Your task to perform on an android device: Show me the alarms in the clock app Image 0: 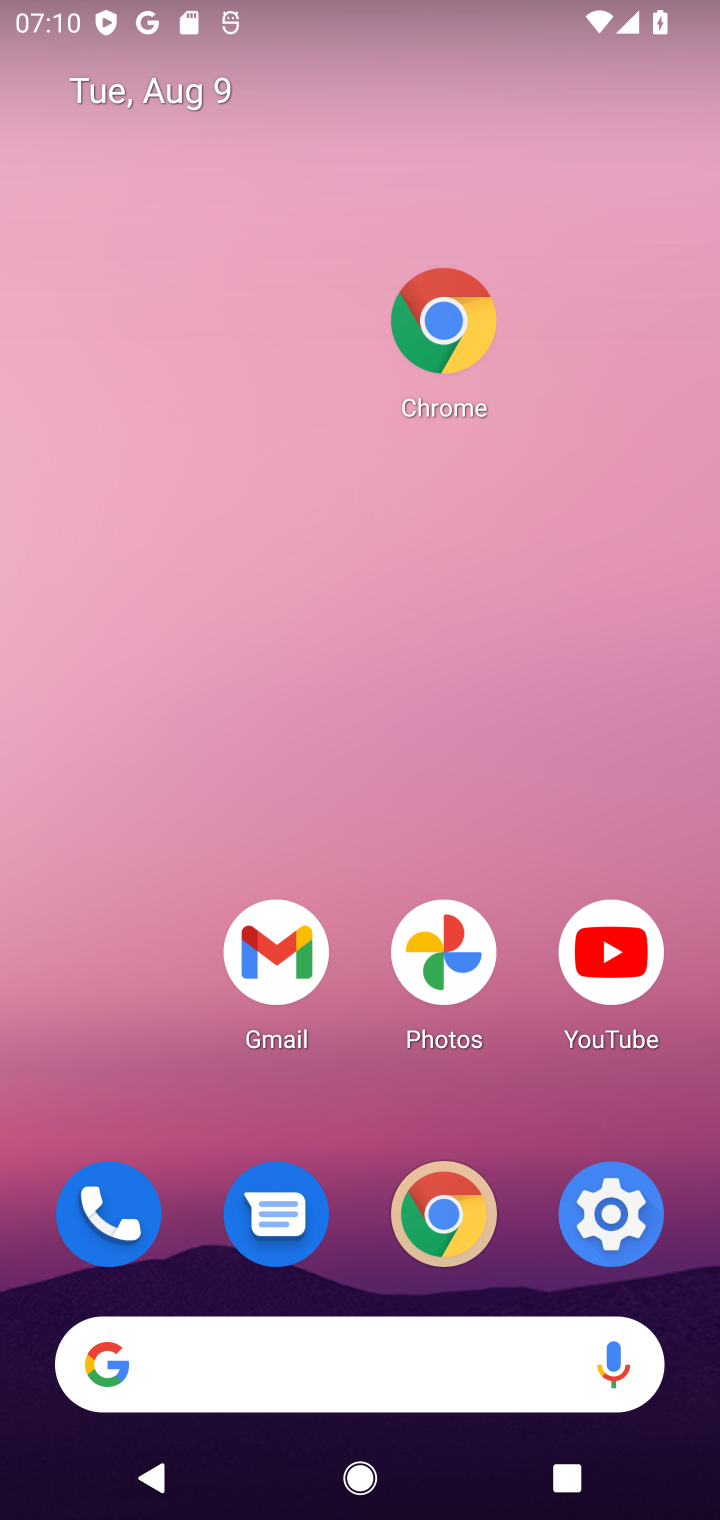
Step 0: drag from (542, 1311) to (333, 426)
Your task to perform on an android device: Show me the alarms in the clock app Image 1: 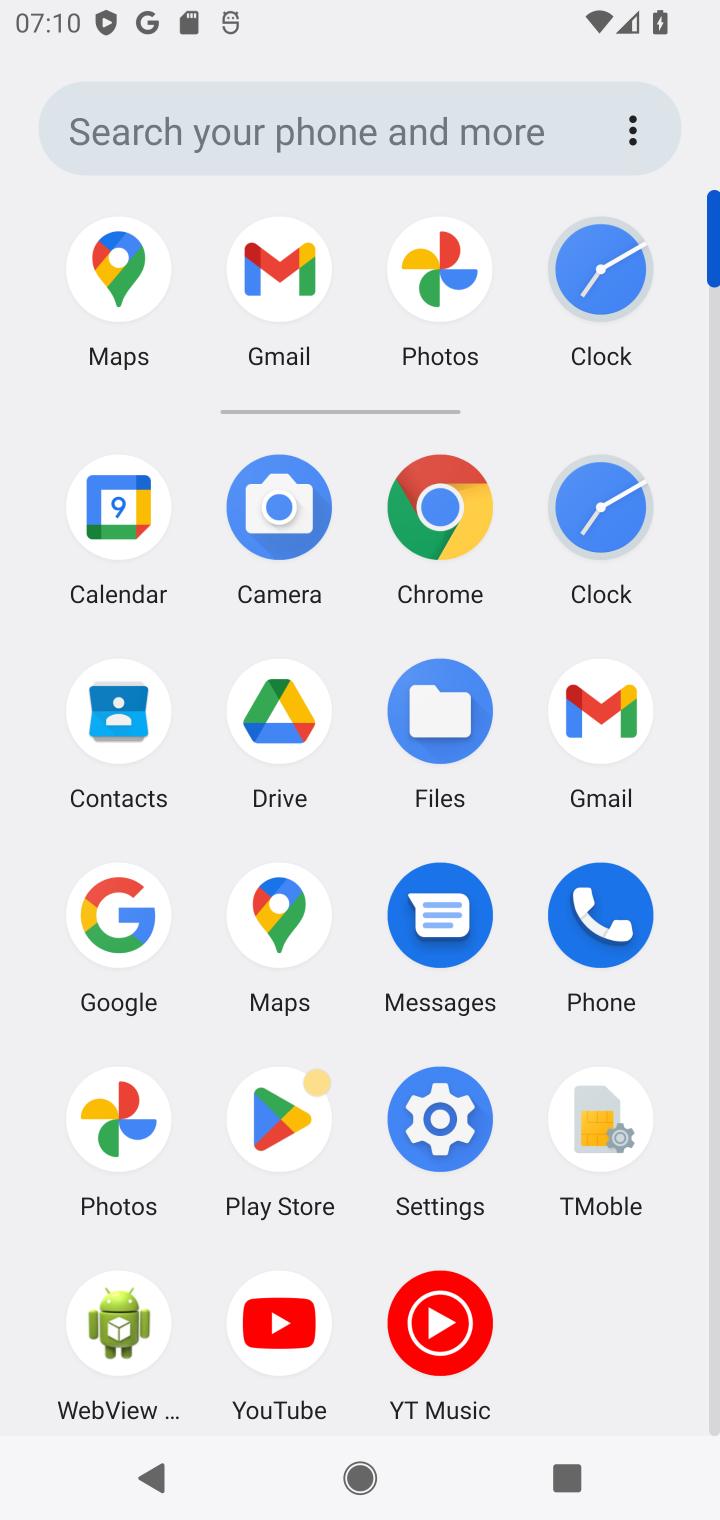
Step 1: click (587, 528)
Your task to perform on an android device: Show me the alarms in the clock app Image 2: 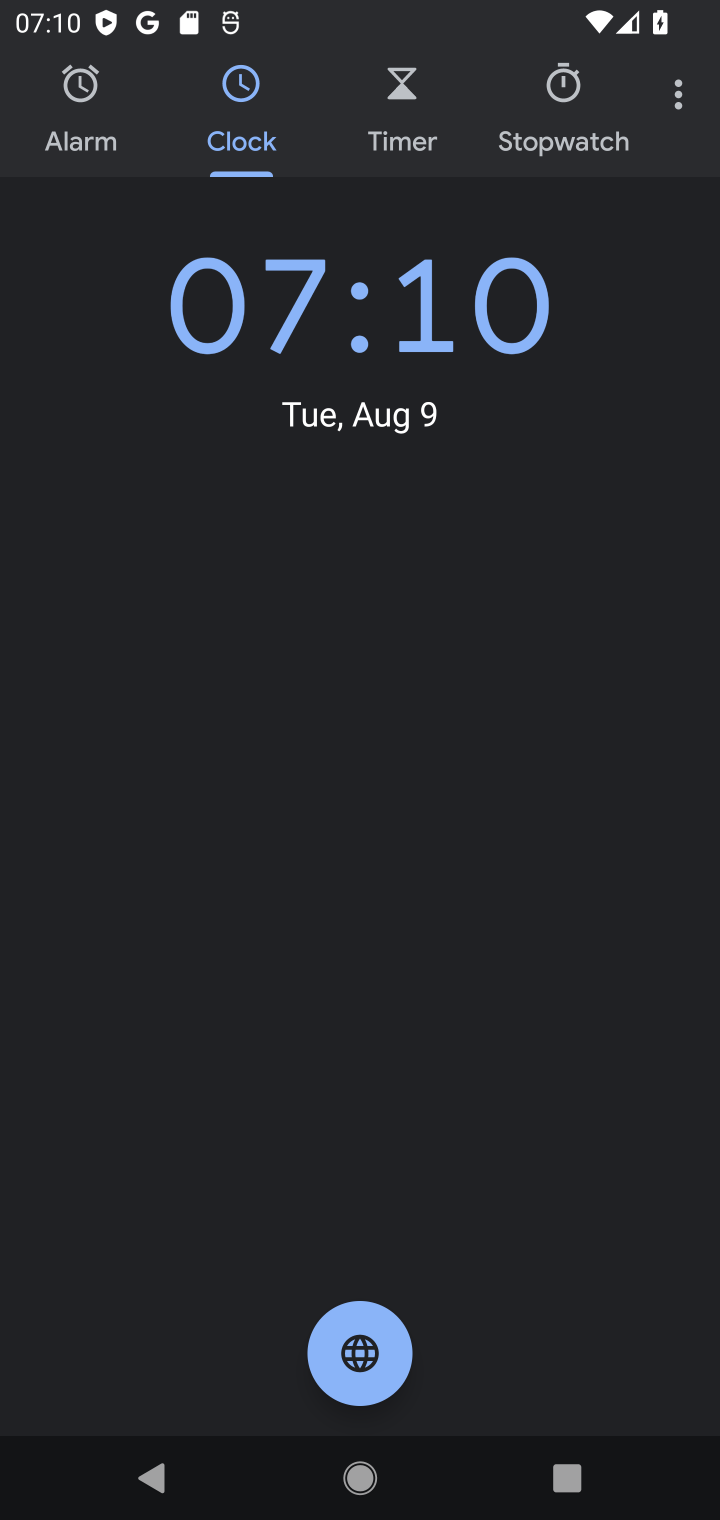
Step 2: click (76, 130)
Your task to perform on an android device: Show me the alarms in the clock app Image 3: 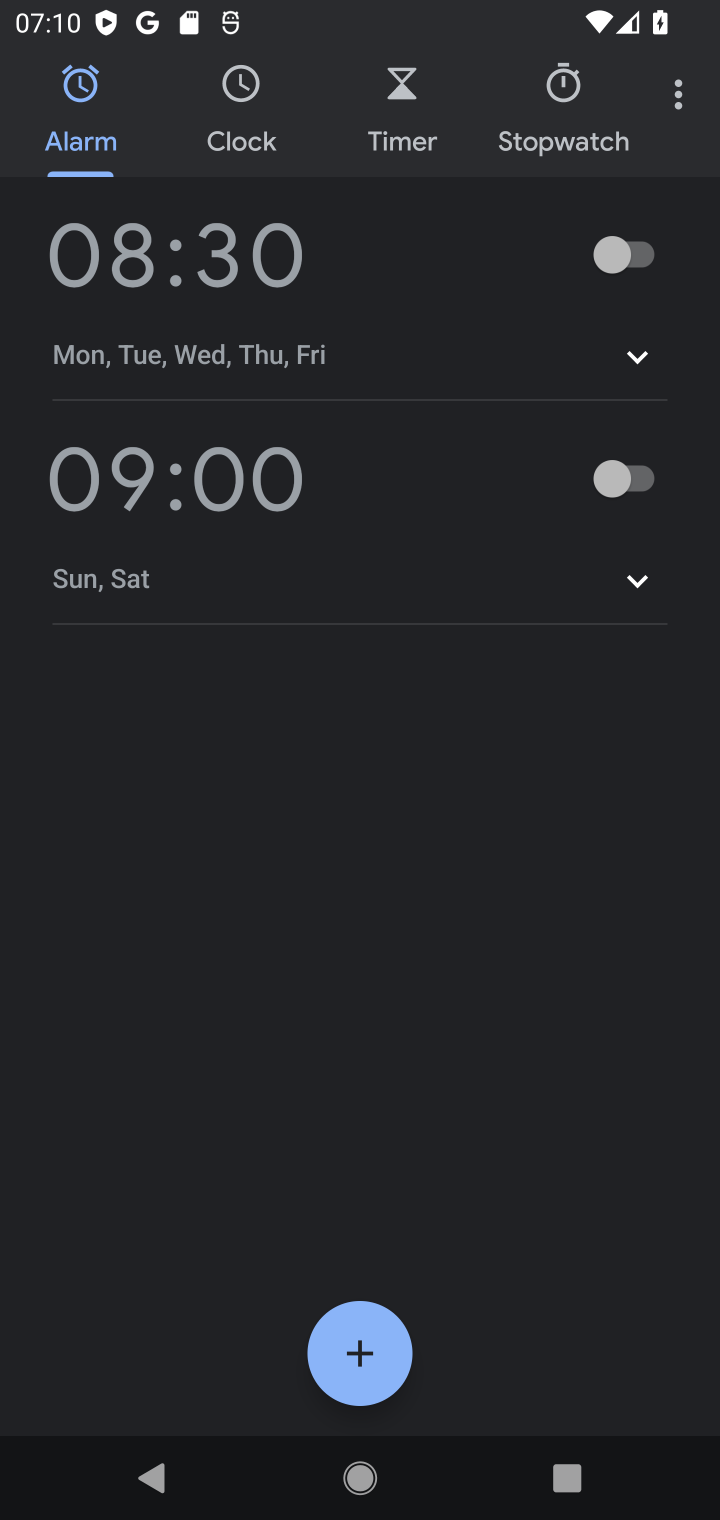
Step 3: click (613, 276)
Your task to perform on an android device: Show me the alarms in the clock app Image 4: 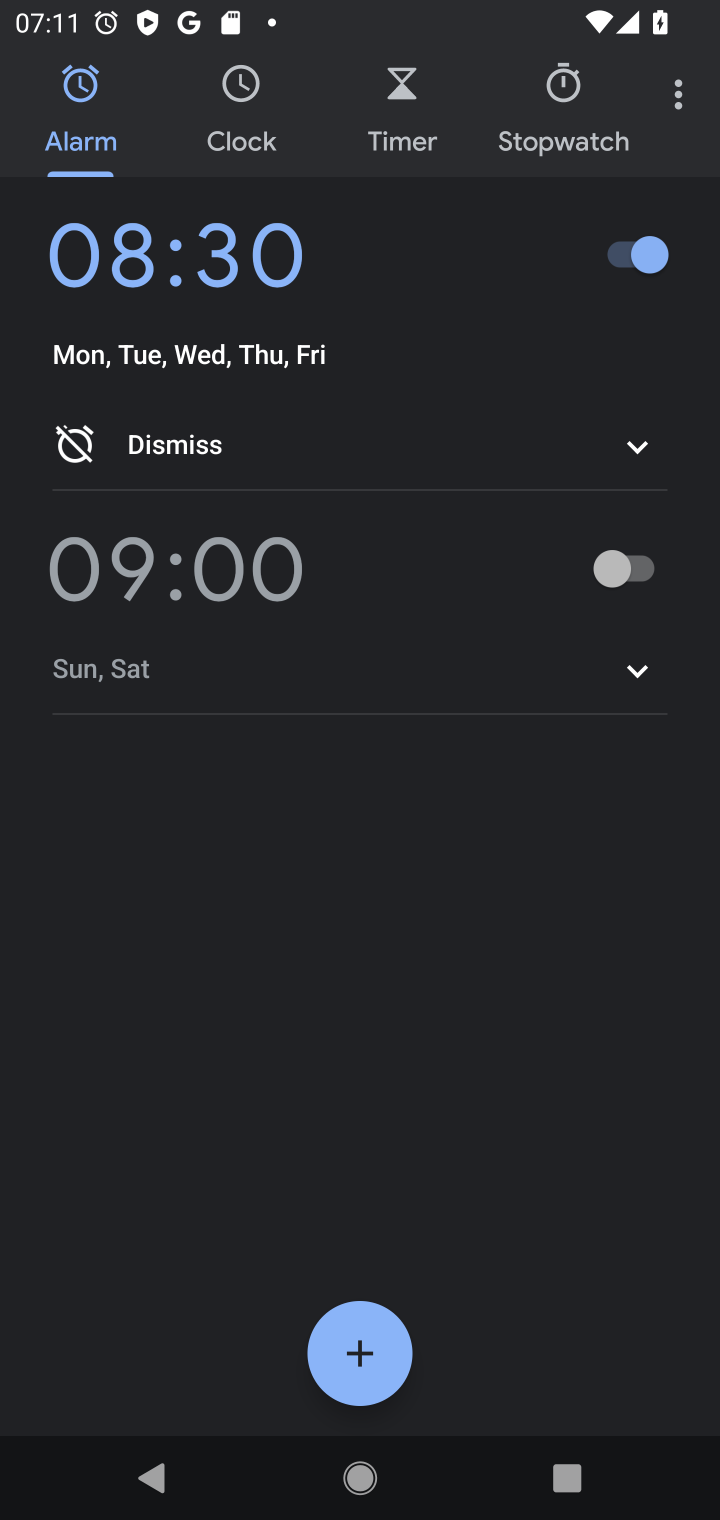
Step 4: task complete